Your task to perform on an android device: View the shopping cart on costco.com. Search for rayovac triple a on costco.com, select the first entry, and add it to the cart. Image 0: 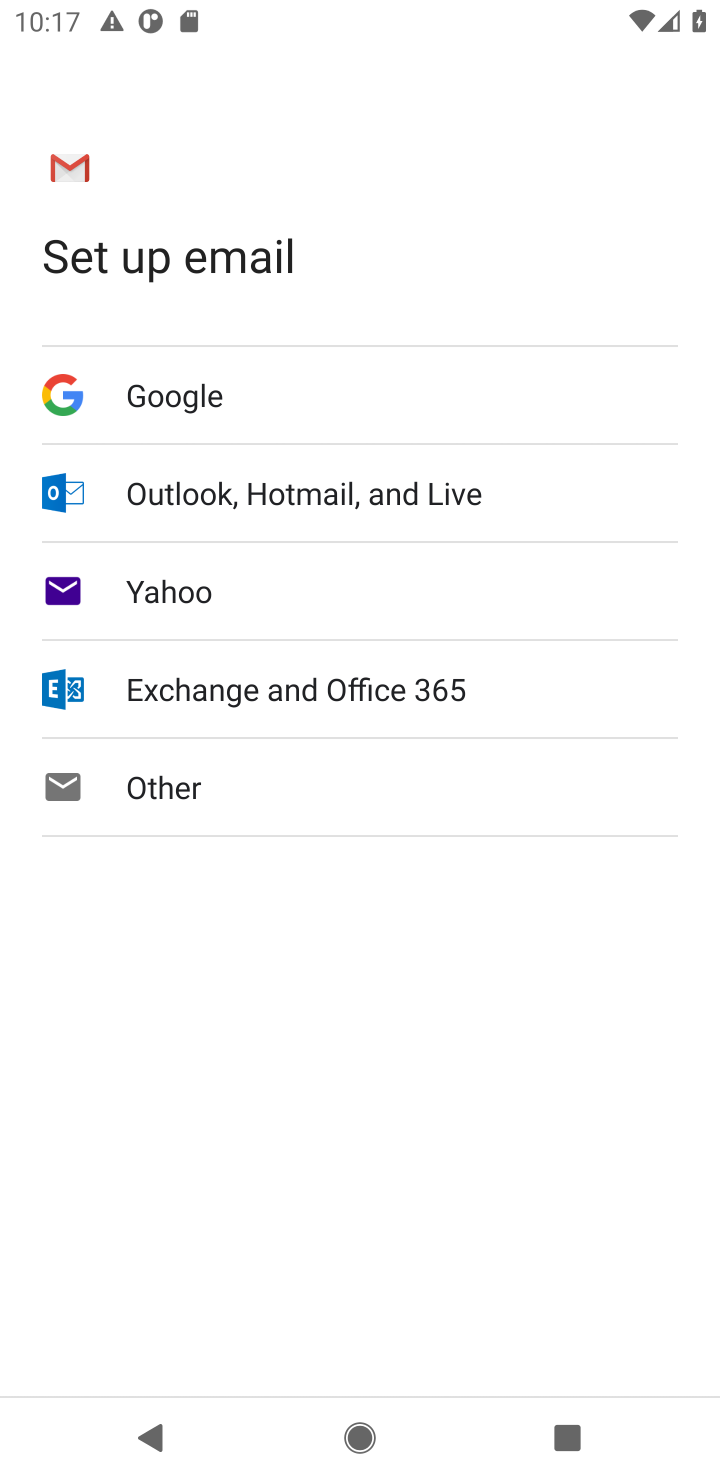
Step 0: press home button
Your task to perform on an android device: View the shopping cart on costco.com. Search for rayovac triple a on costco.com, select the first entry, and add it to the cart. Image 1: 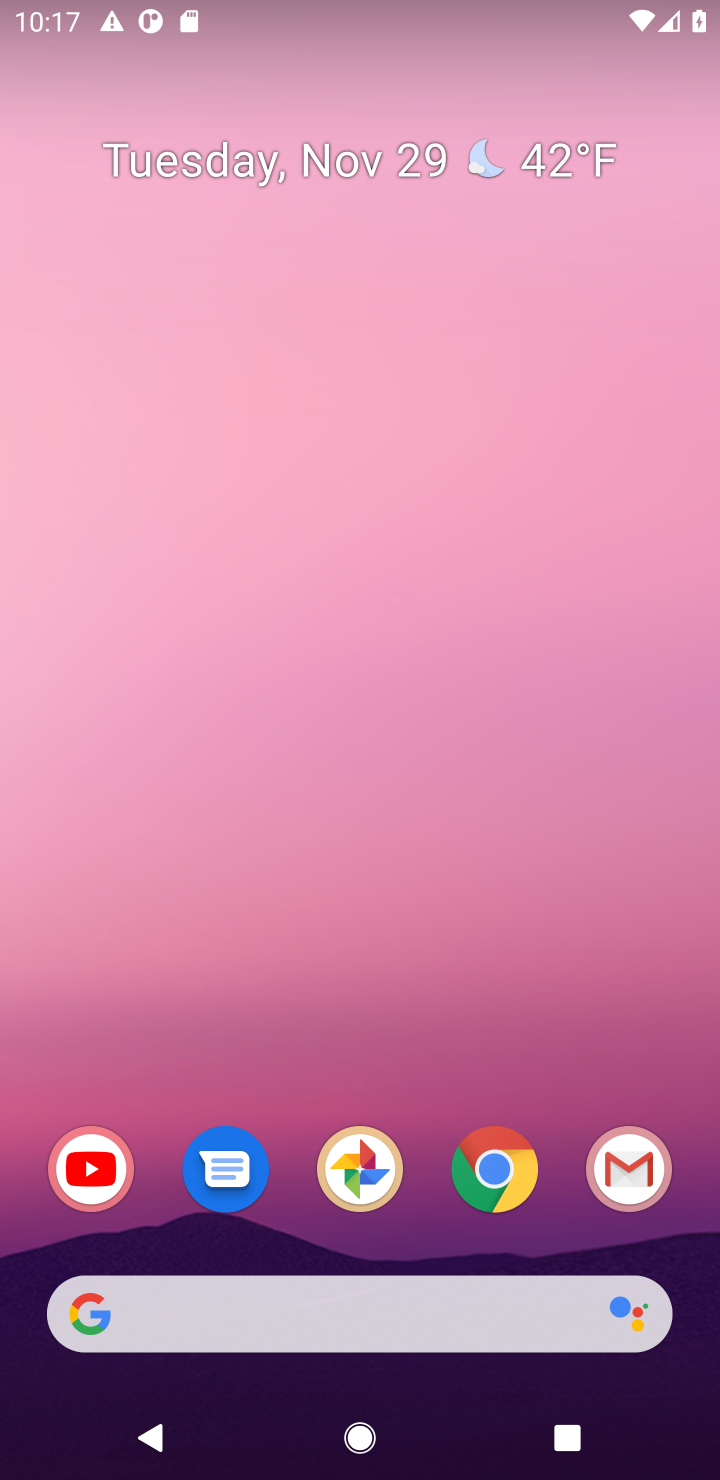
Step 1: click (442, 1311)
Your task to perform on an android device: View the shopping cart on costco.com. Search for rayovac triple a on costco.com, select the first entry, and add it to the cart. Image 2: 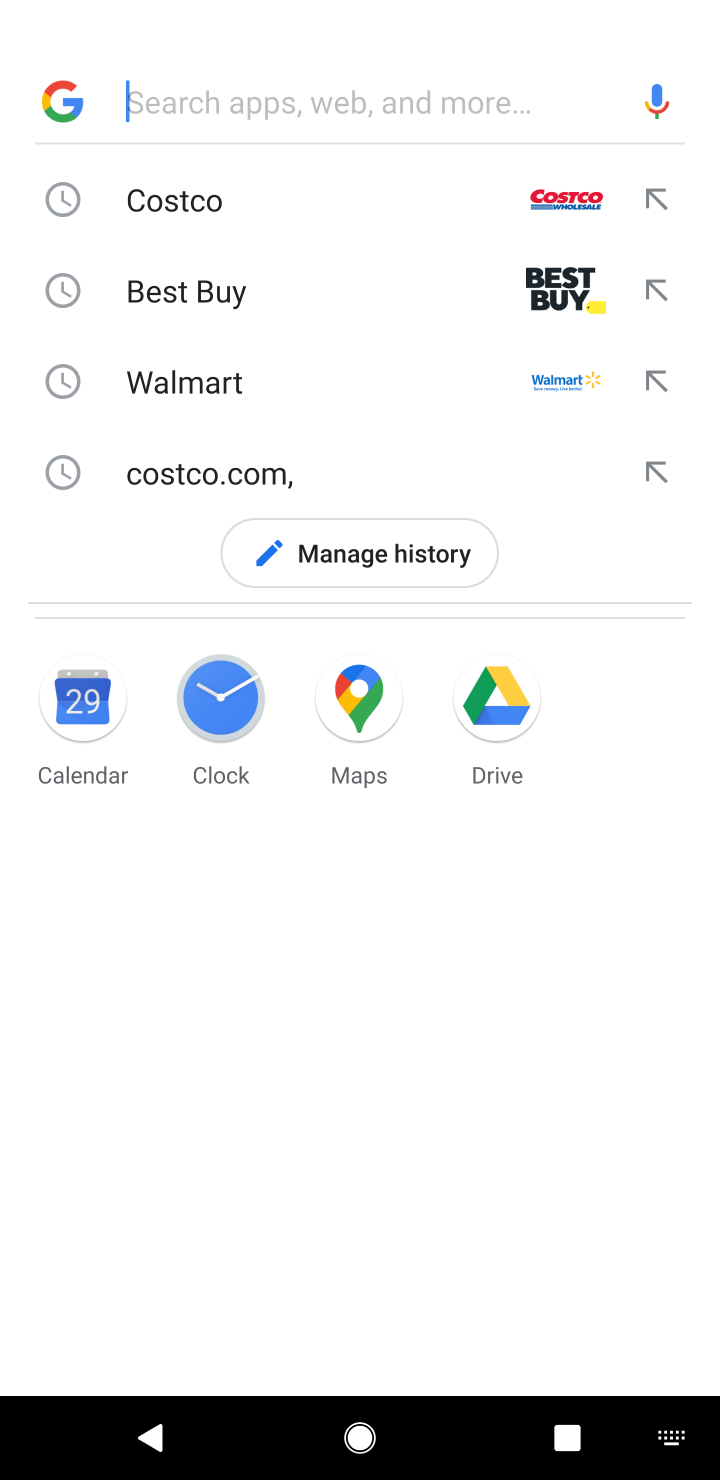
Step 2: click (220, 215)
Your task to perform on an android device: View the shopping cart on costco.com. Search for rayovac triple a on costco.com, select the first entry, and add it to the cart. Image 3: 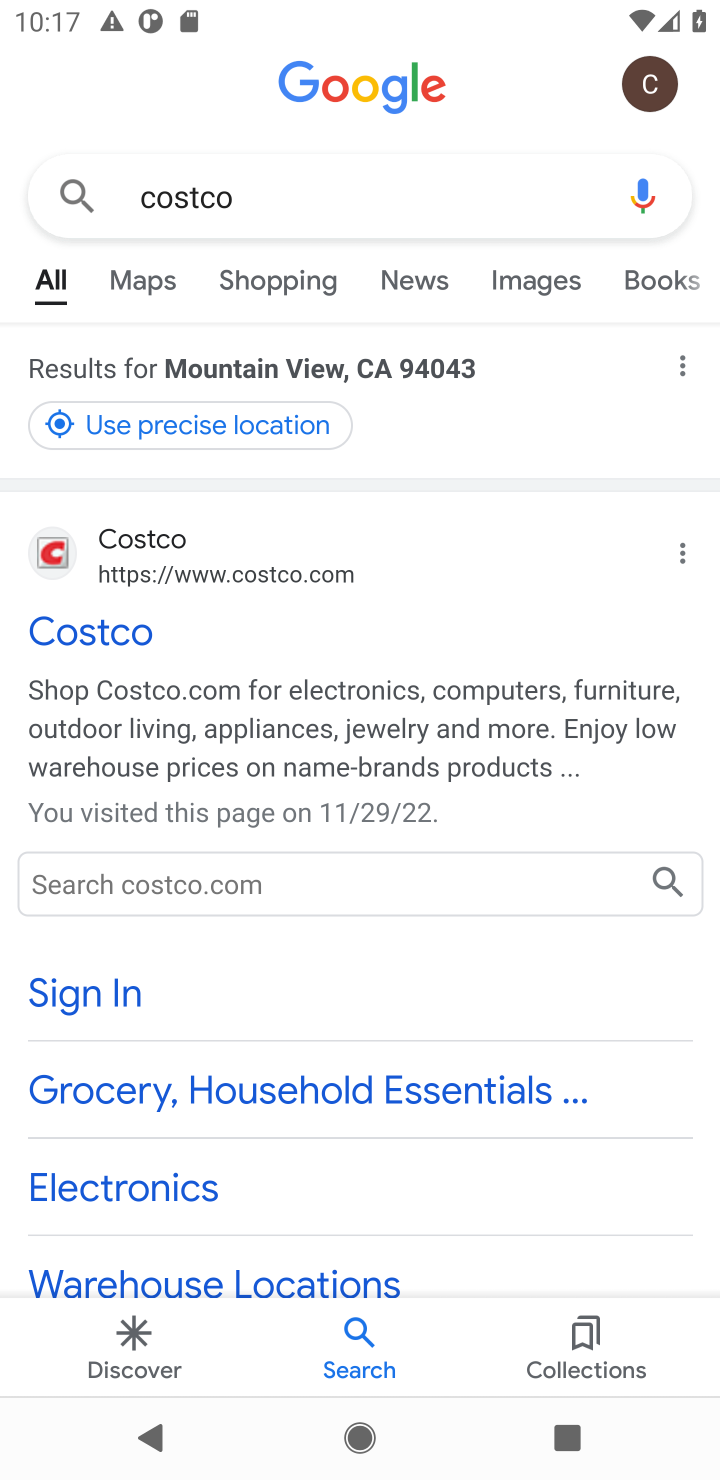
Step 3: click (57, 611)
Your task to perform on an android device: View the shopping cart on costco.com. Search for rayovac triple a on costco.com, select the first entry, and add it to the cart. Image 4: 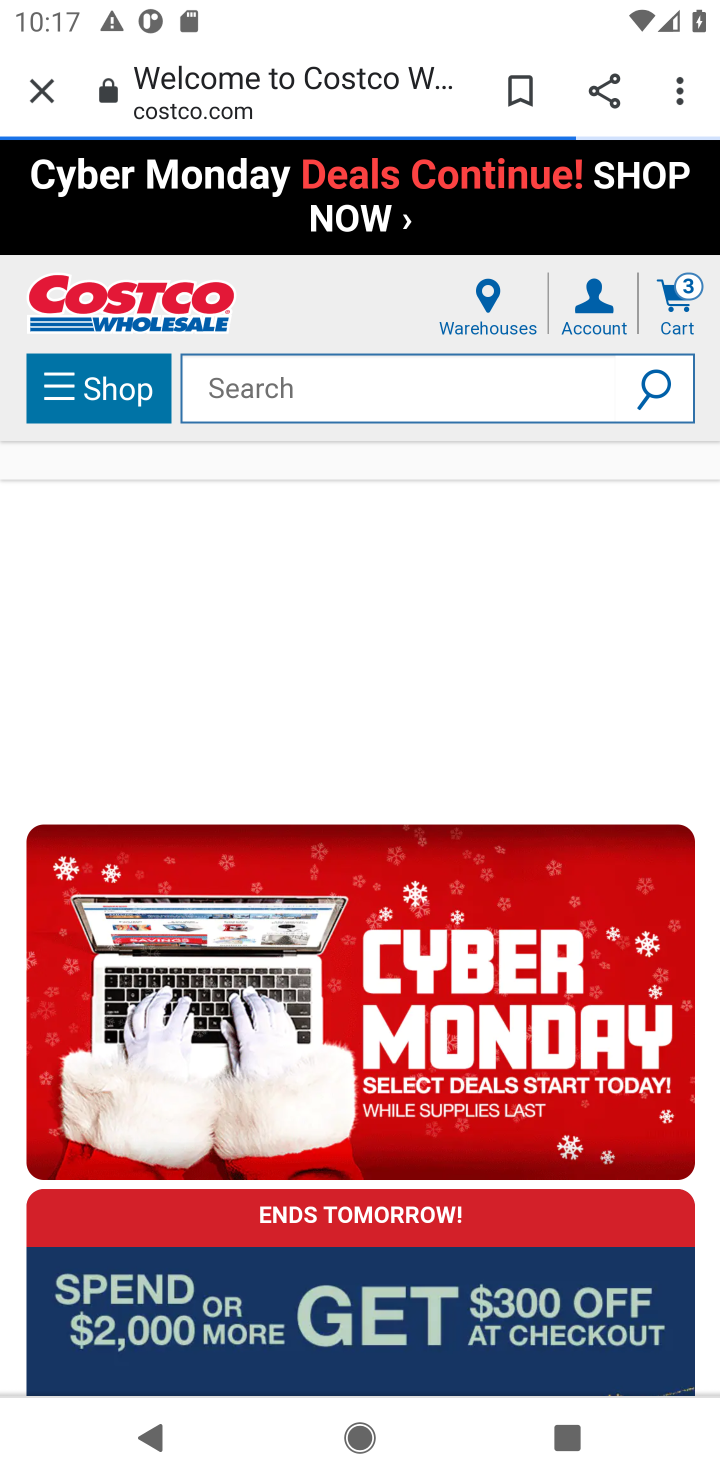
Step 4: click (285, 404)
Your task to perform on an android device: View the shopping cart on costco.com. Search for rayovac triple a on costco.com, select the first entry, and add it to the cart. Image 5: 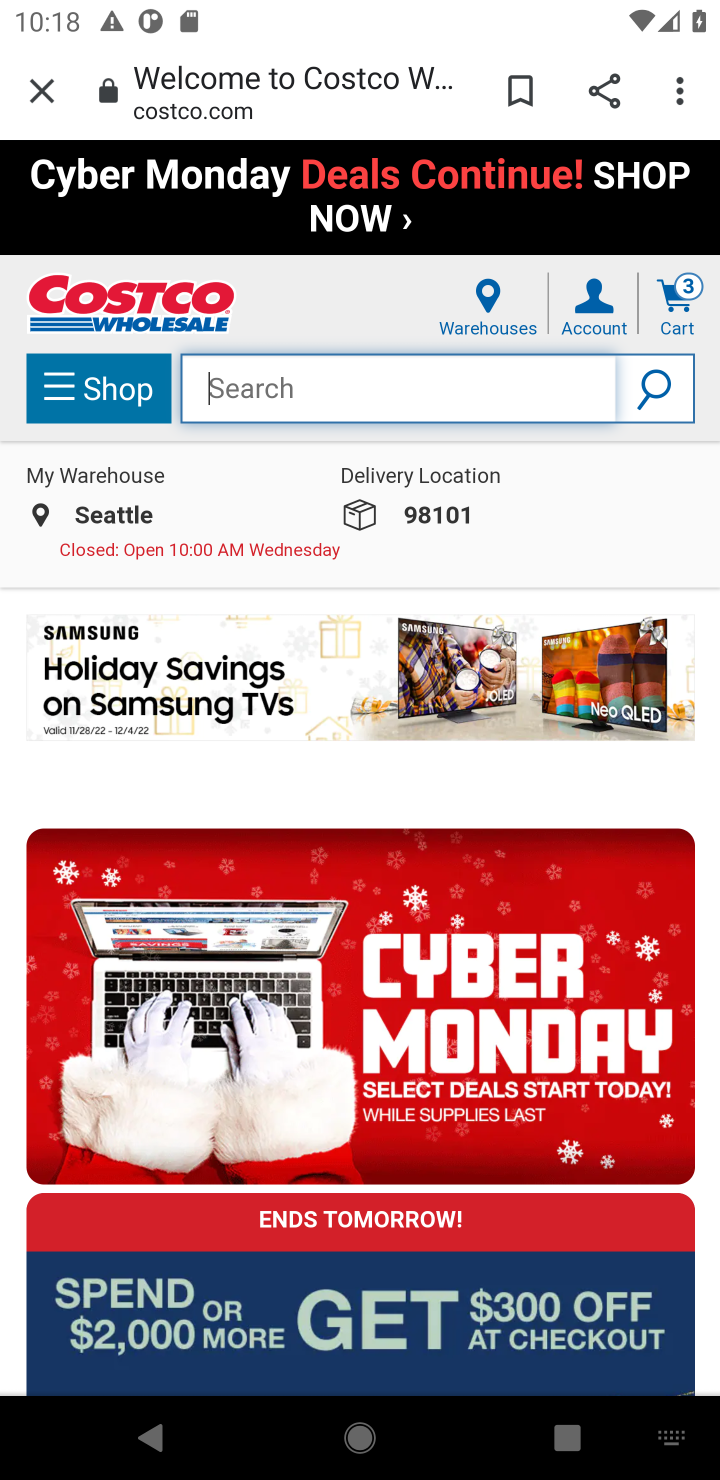
Step 5: type "rayovac"
Your task to perform on an android device: View the shopping cart on costco.com. Search for rayovac triple a on costco.com, select the first entry, and add it to the cart. Image 6: 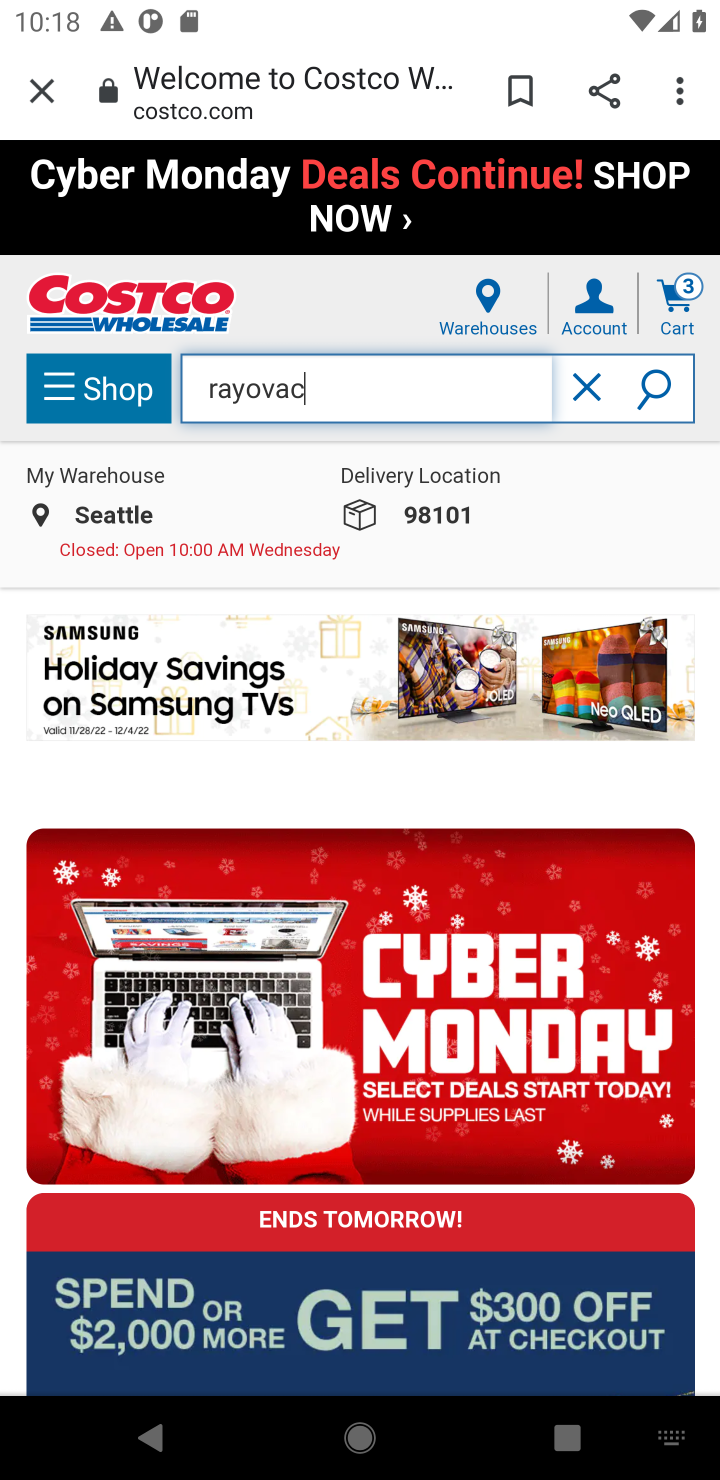
Step 6: click (632, 397)
Your task to perform on an android device: View the shopping cart on costco.com. Search for rayovac triple a on costco.com, select the first entry, and add it to the cart. Image 7: 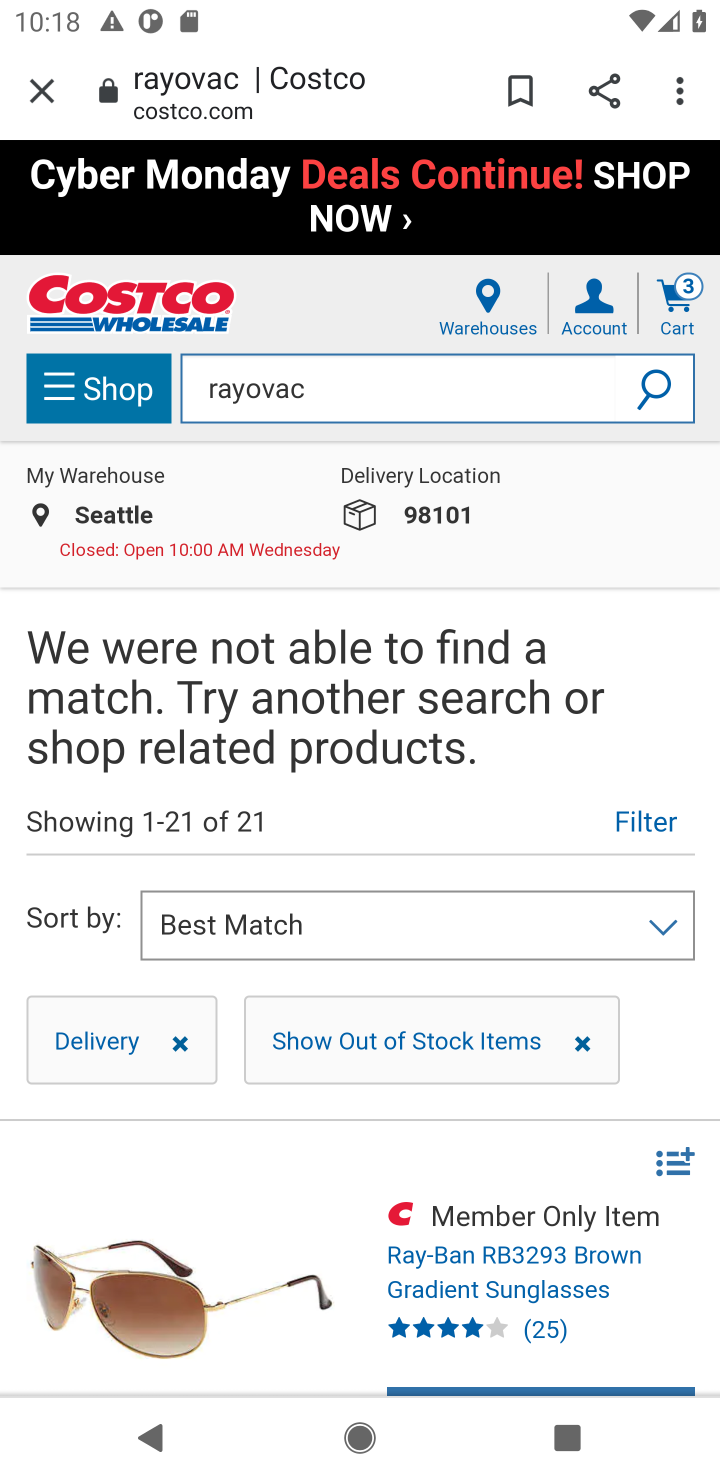
Step 7: click (504, 1391)
Your task to perform on an android device: View the shopping cart on costco.com. Search for rayovac triple a on costco.com, select the first entry, and add it to the cart. Image 8: 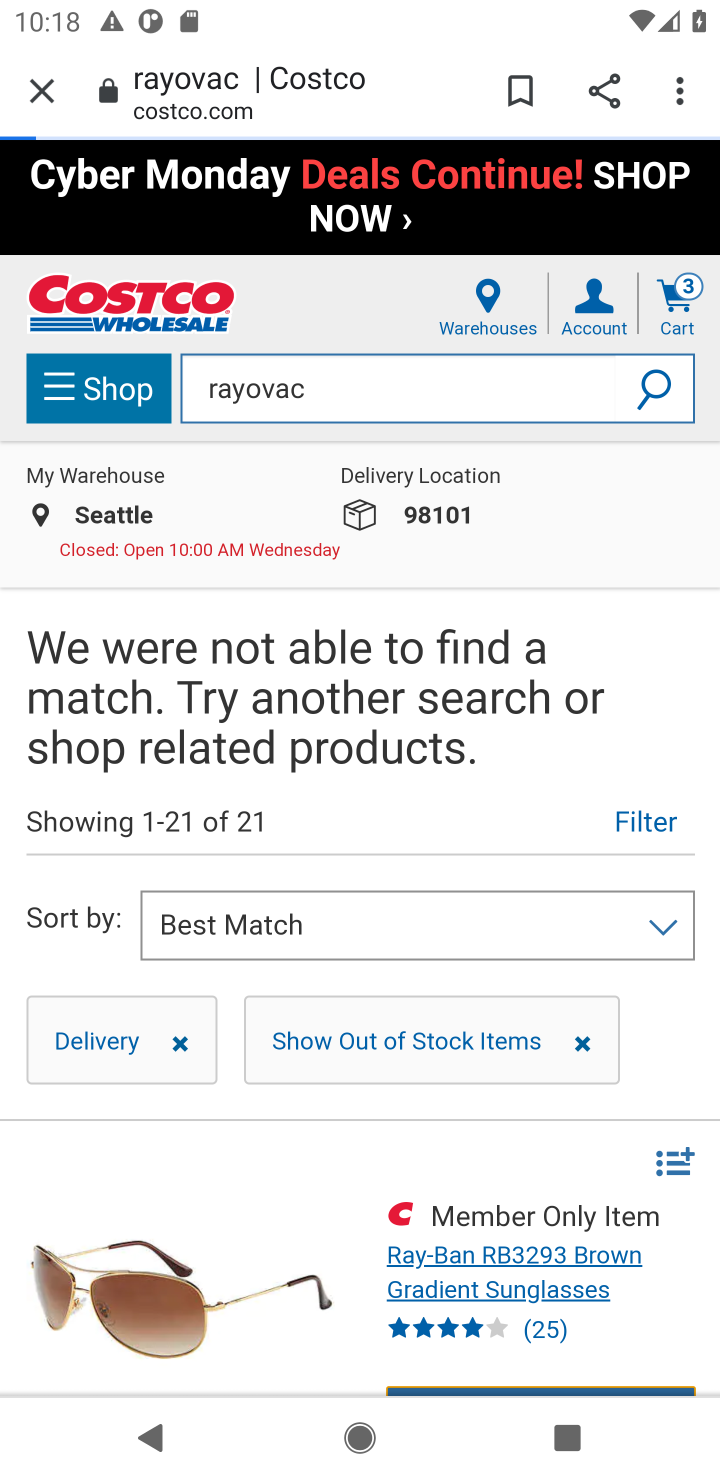
Step 8: task complete